Your task to perform on an android device: turn off data saver in the chrome app Image 0: 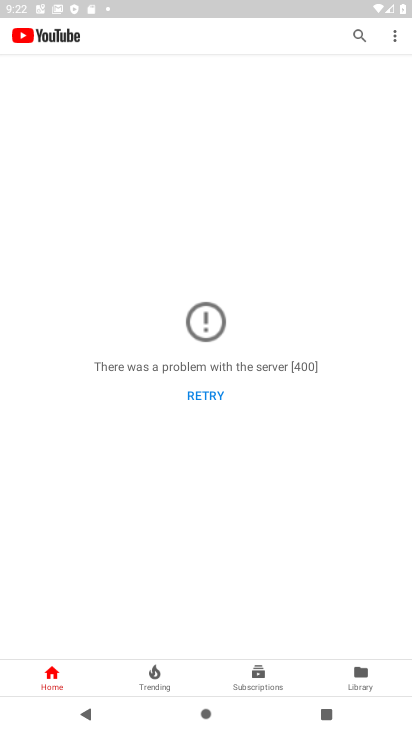
Step 0: drag from (274, 578) to (297, 102)
Your task to perform on an android device: turn off data saver in the chrome app Image 1: 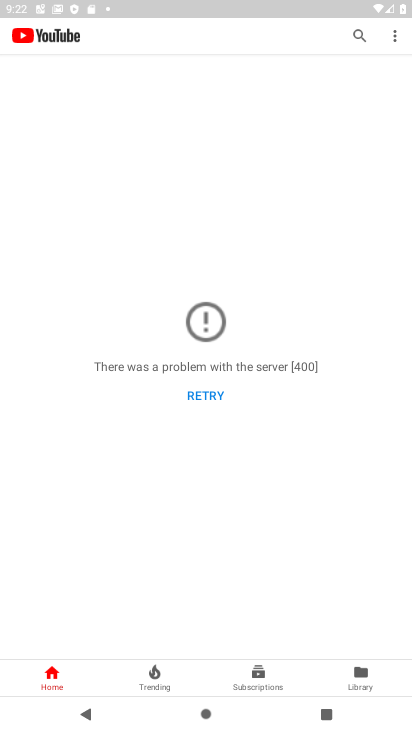
Step 1: press back button
Your task to perform on an android device: turn off data saver in the chrome app Image 2: 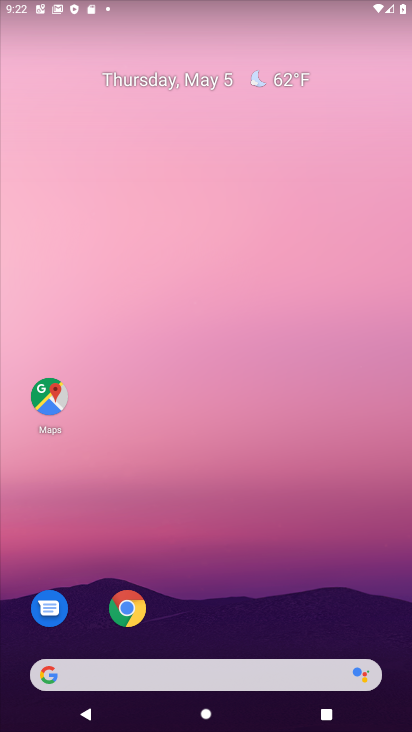
Step 2: drag from (277, 509) to (334, 0)
Your task to perform on an android device: turn off data saver in the chrome app Image 3: 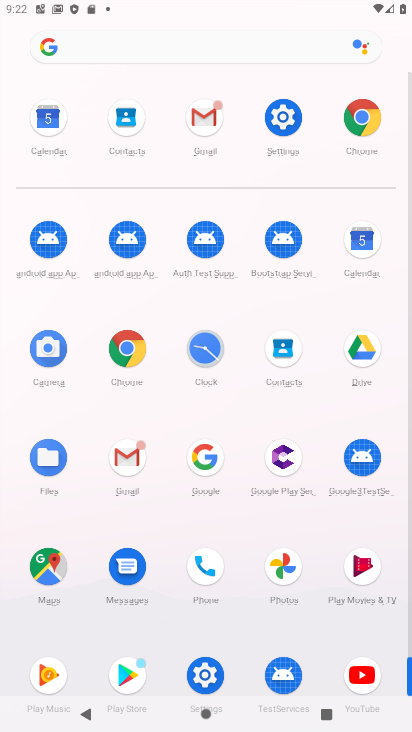
Step 3: click (126, 346)
Your task to perform on an android device: turn off data saver in the chrome app Image 4: 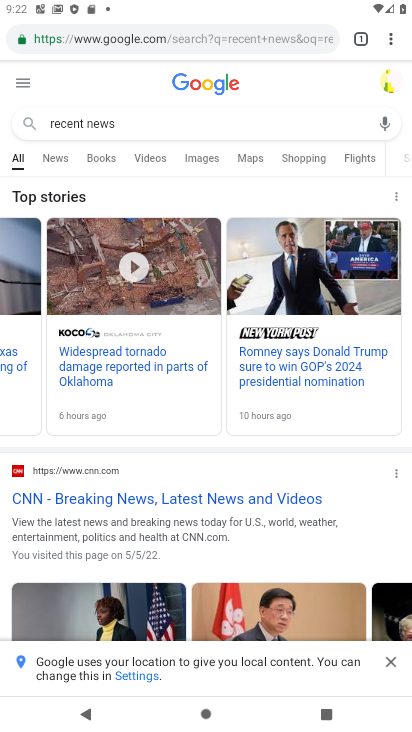
Step 4: drag from (390, 39) to (272, 436)
Your task to perform on an android device: turn off data saver in the chrome app Image 5: 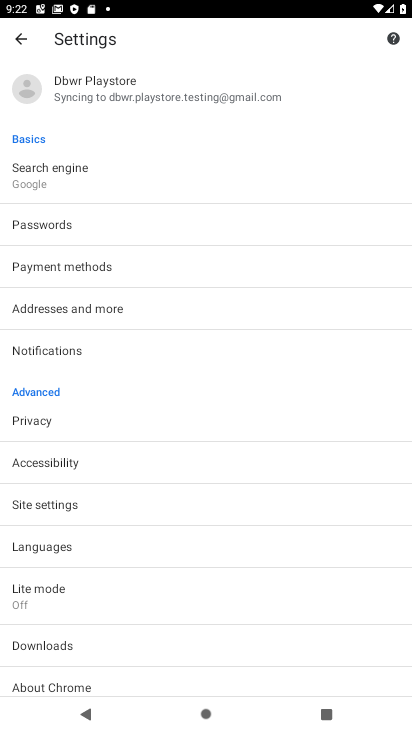
Step 5: drag from (226, 565) to (223, 155)
Your task to perform on an android device: turn off data saver in the chrome app Image 6: 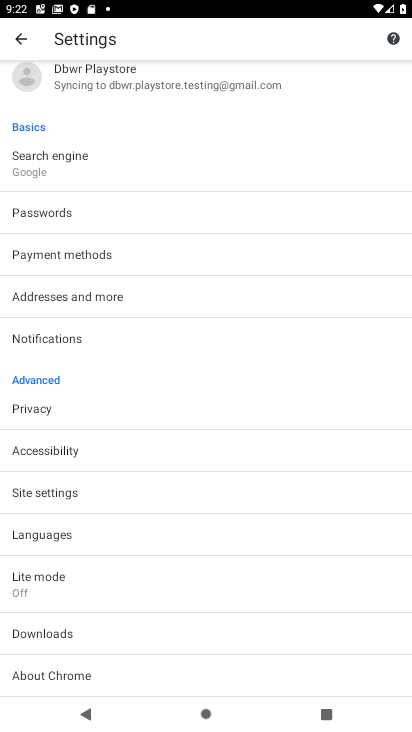
Step 6: drag from (248, 614) to (241, 177)
Your task to perform on an android device: turn off data saver in the chrome app Image 7: 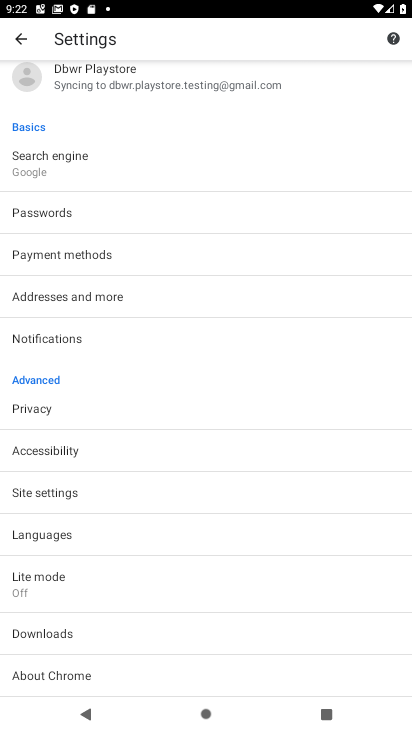
Step 7: click (144, 581)
Your task to perform on an android device: turn off data saver in the chrome app Image 8: 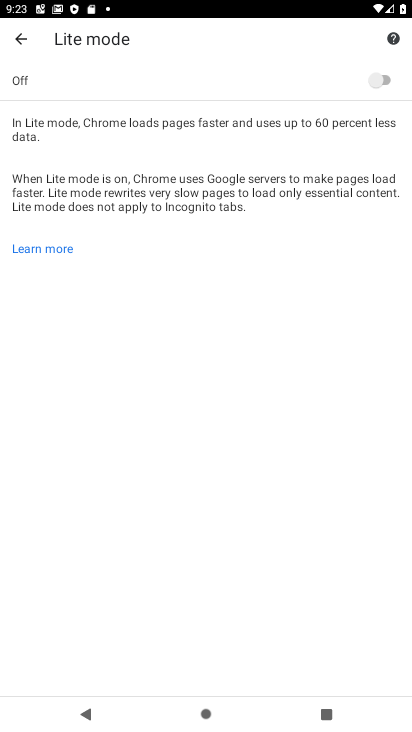
Step 8: task complete